Your task to perform on an android device: Open wifi settings Image 0: 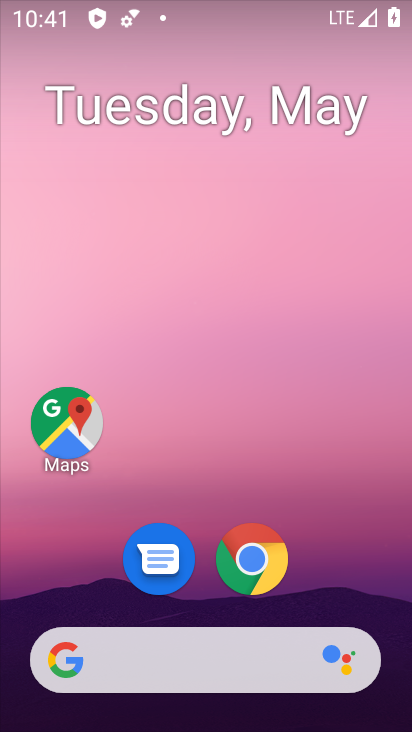
Step 0: drag from (364, 573) to (375, 178)
Your task to perform on an android device: Open wifi settings Image 1: 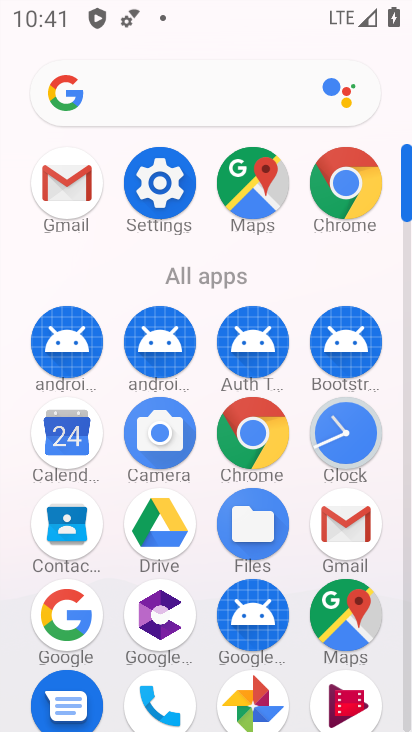
Step 1: click (166, 196)
Your task to perform on an android device: Open wifi settings Image 2: 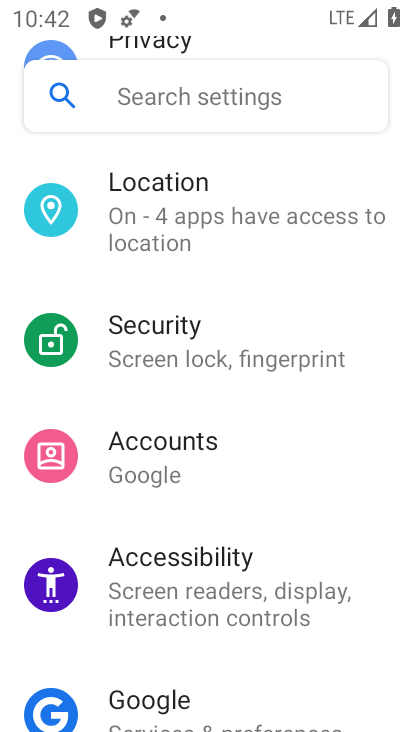
Step 2: drag from (229, 191) to (248, 536)
Your task to perform on an android device: Open wifi settings Image 3: 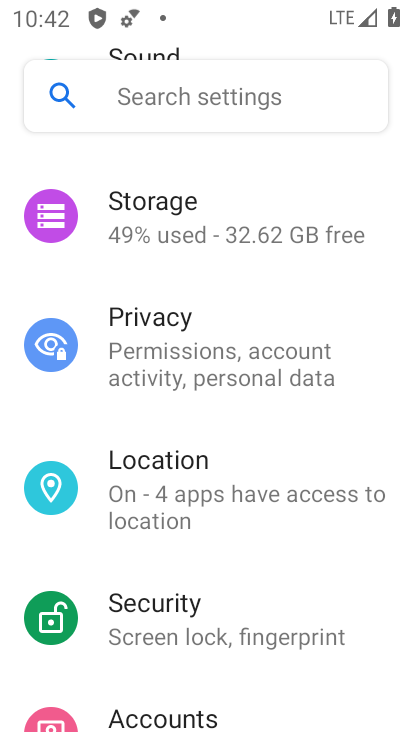
Step 3: drag from (241, 193) to (248, 585)
Your task to perform on an android device: Open wifi settings Image 4: 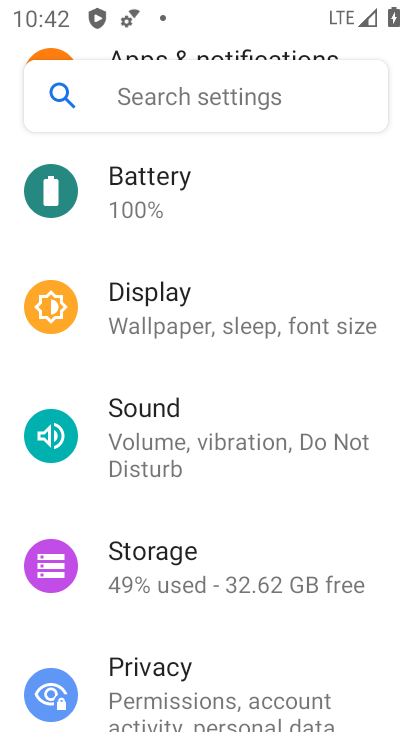
Step 4: drag from (261, 365) to (275, 641)
Your task to perform on an android device: Open wifi settings Image 5: 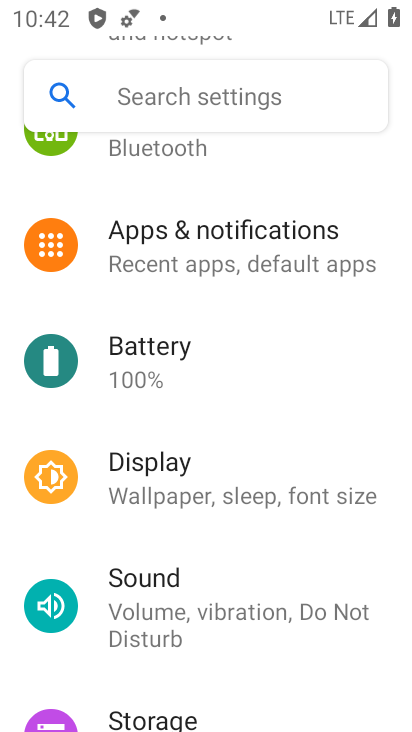
Step 5: drag from (295, 175) to (301, 664)
Your task to perform on an android device: Open wifi settings Image 6: 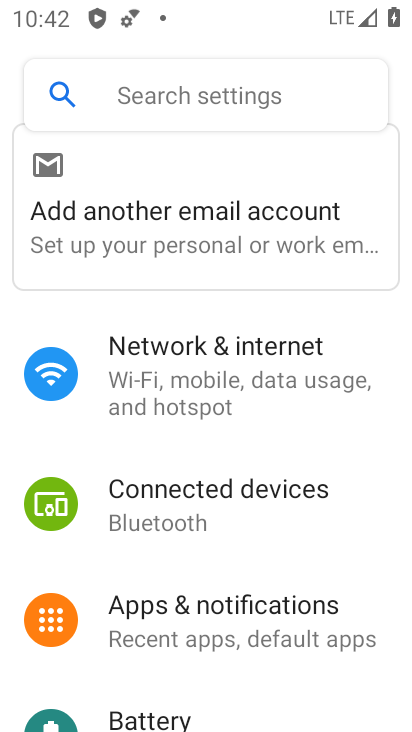
Step 6: click (206, 382)
Your task to perform on an android device: Open wifi settings Image 7: 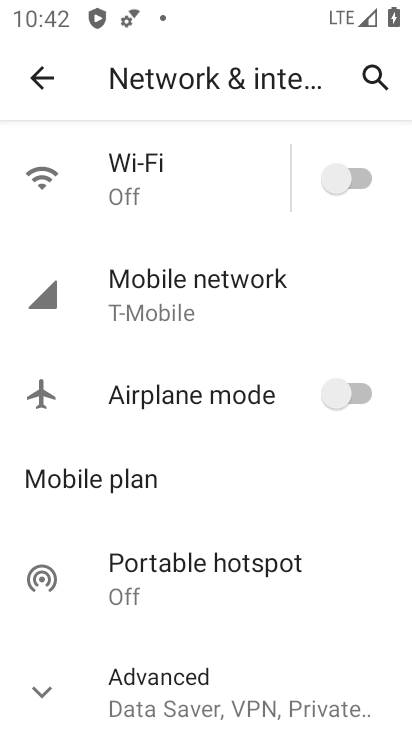
Step 7: click (161, 196)
Your task to perform on an android device: Open wifi settings Image 8: 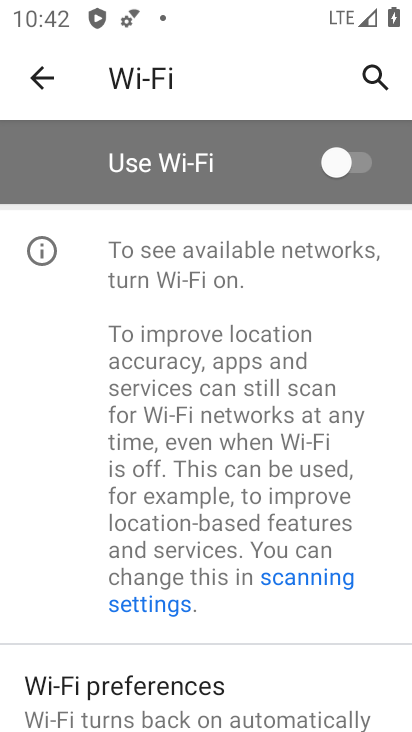
Step 8: task complete